Your task to perform on an android device: turn on translation in the chrome app Image 0: 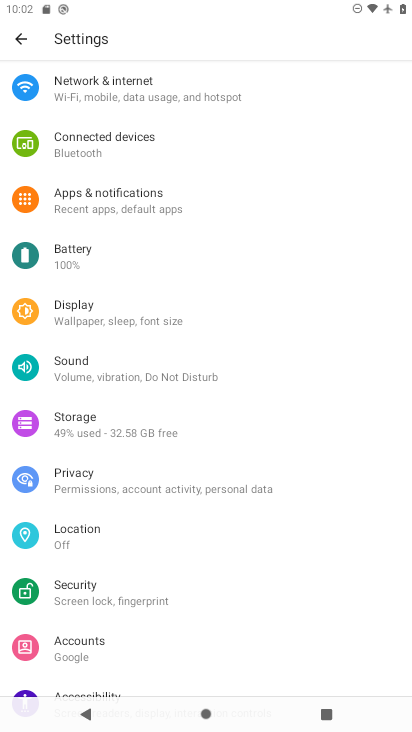
Step 0: press home button
Your task to perform on an android device: turn on translation in the chrome app Image 1: 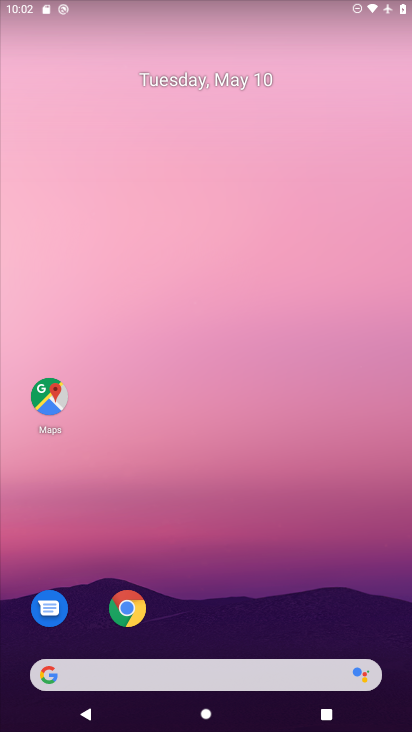
Step 1: drag from (245, 408) to (244, 253)
Your task to perform on an android device: turn on translation in the chrome app Image 2: 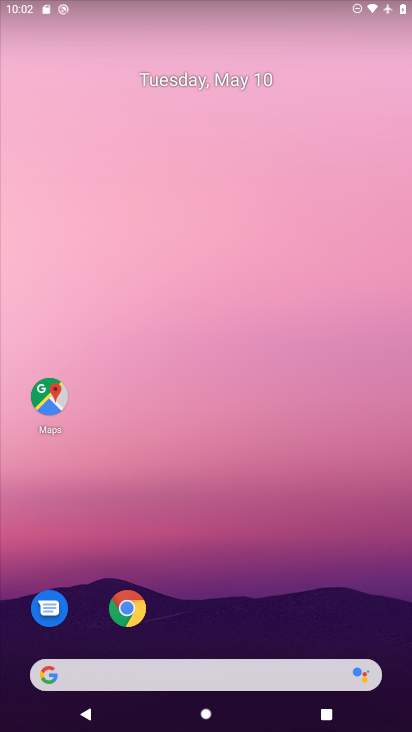
Step 2: drag from (249, 515) to (252, 214)
Your task to perform on an android device: turn on translation in the chrome app Image 3: 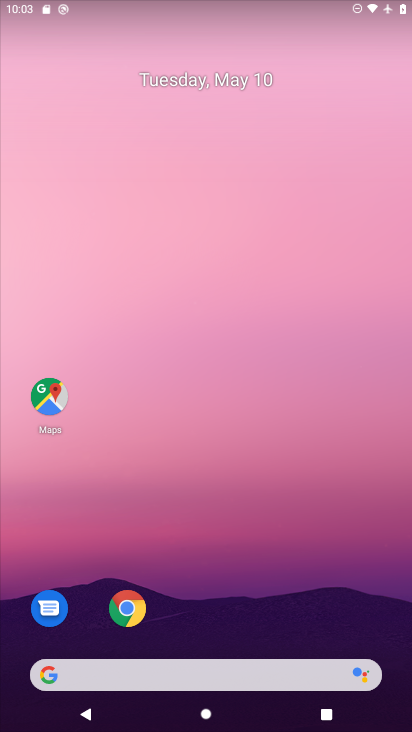
Step 3: drag from (269, 577) to (282, 385)
Your task to perform on an android device: turn on translation in the chrome app Image 4: 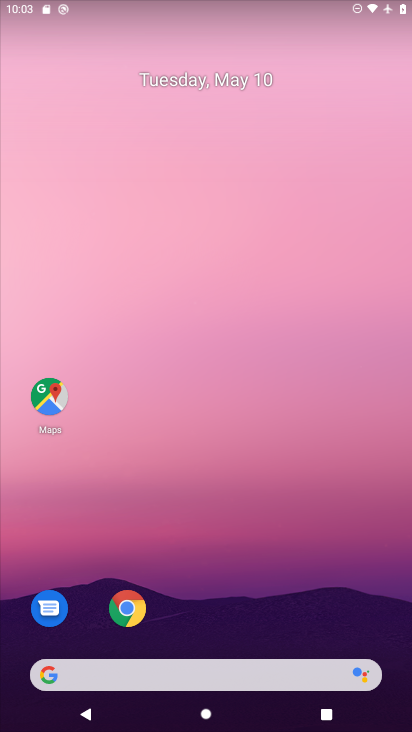
Step 4: drag from (224, 636) to (222, 534)
Your task to perform on an android device: turn on translation in the chrome app Image 5: 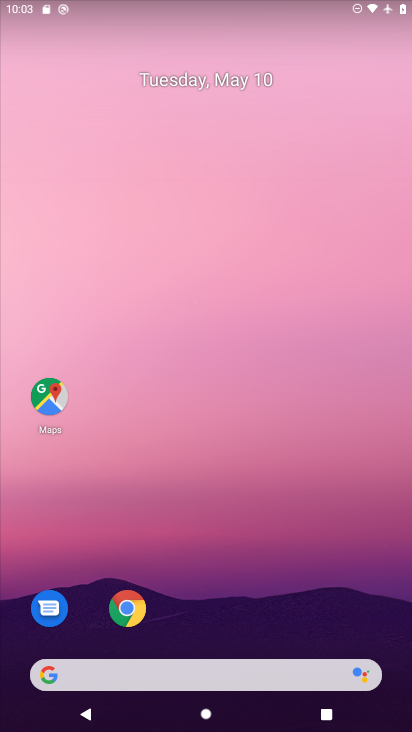
Step 5: drag from (241, 458) to (305, 181)
Your task to perform on an android device: turn on translation in the chrome app Image 6: 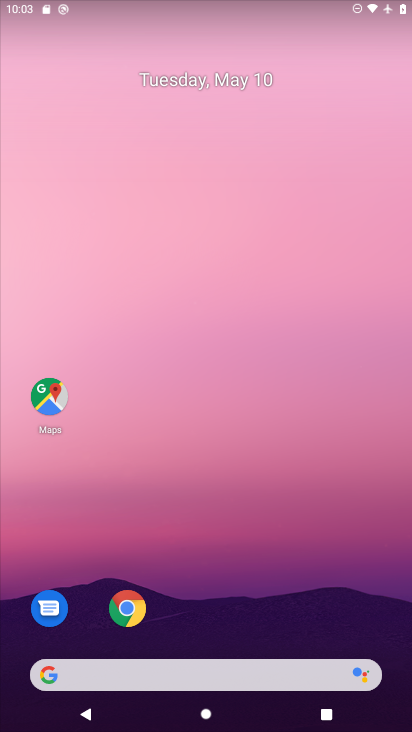
Step 6: drag from (175, 656) to (226, 171)
Your task to perform on an android device: turn on translation in the chrome app Image 7: 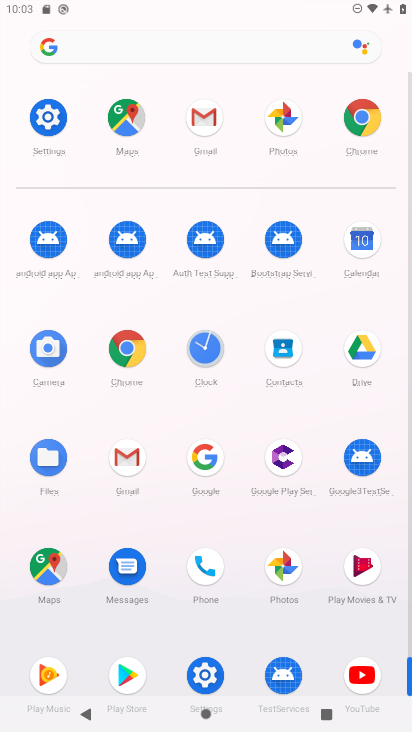
Step 7: click (362, 107)
Your task to perform on an android device: turn on translation in the chrome app Image 8: 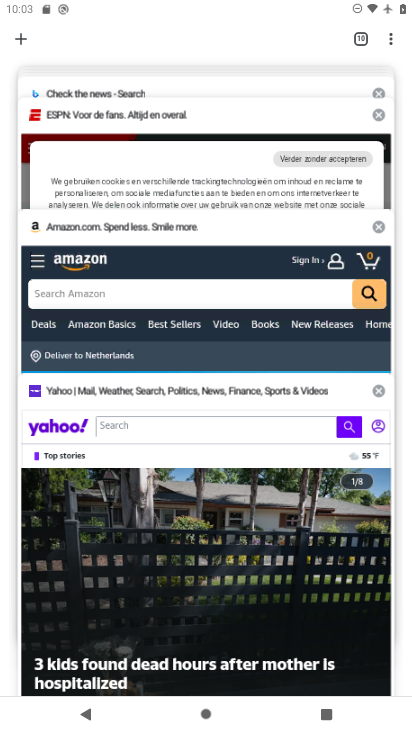
Step 8: click (382, 41)
Your task to perform on an android device: turn on translation in the chrome app Image 9: 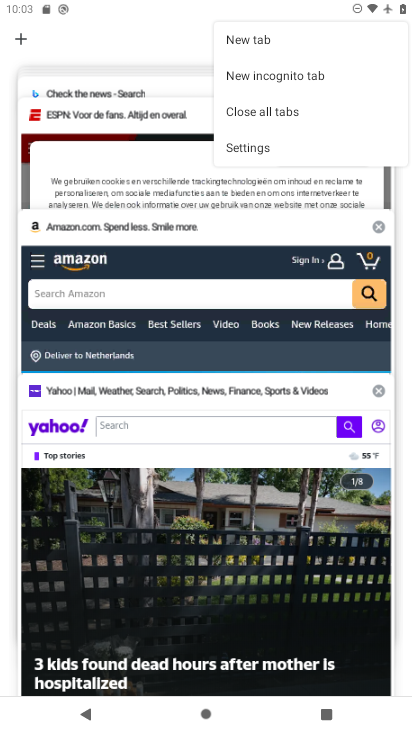
Step 9: click (259, 144)
Your task to perform on an android device: turn on translation in the chrome app Image 10: 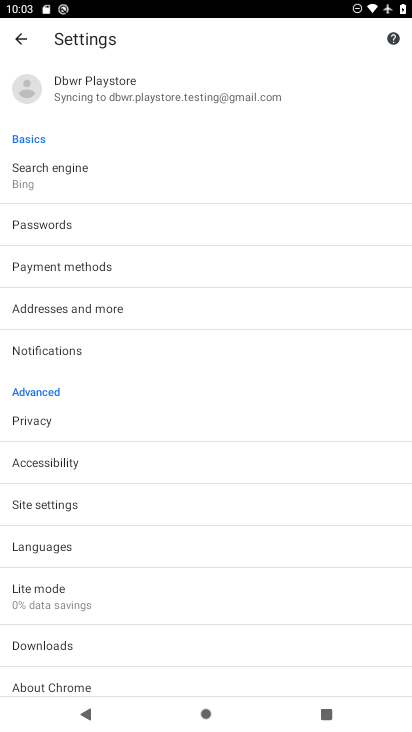
Step 10: click (63, 543)
Your task to perform on an android device: turn on translation in the chrome app Image 11: 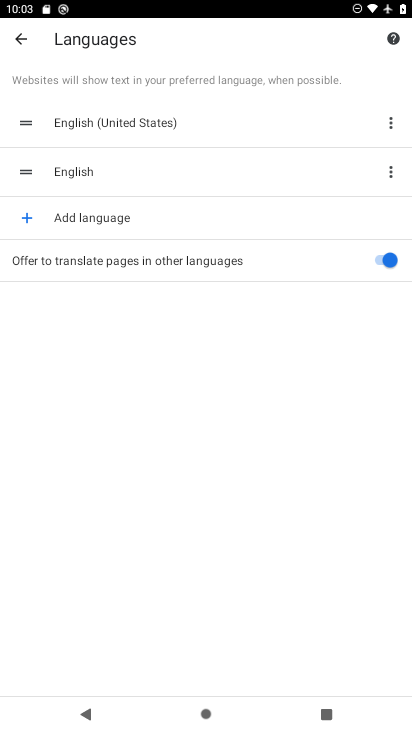
Step 11: task complete